Your task to perform on an android device: Open the phone app and click the voicemail tab. Image 0: 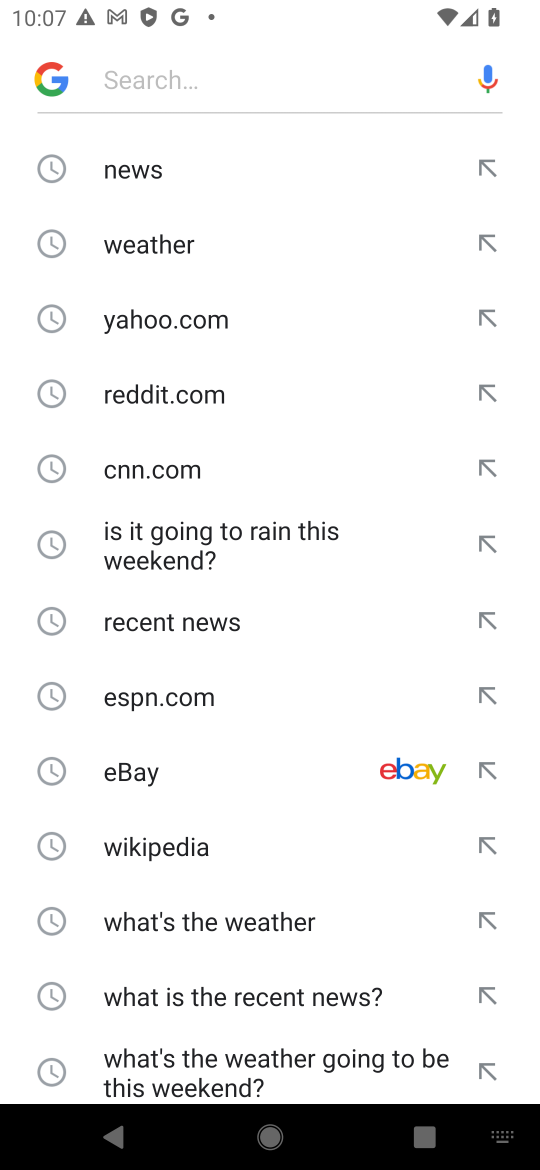
Step 0: press home button
Your task to perform on an android device: Open the phone app and click the voicemail tab. Image 1: 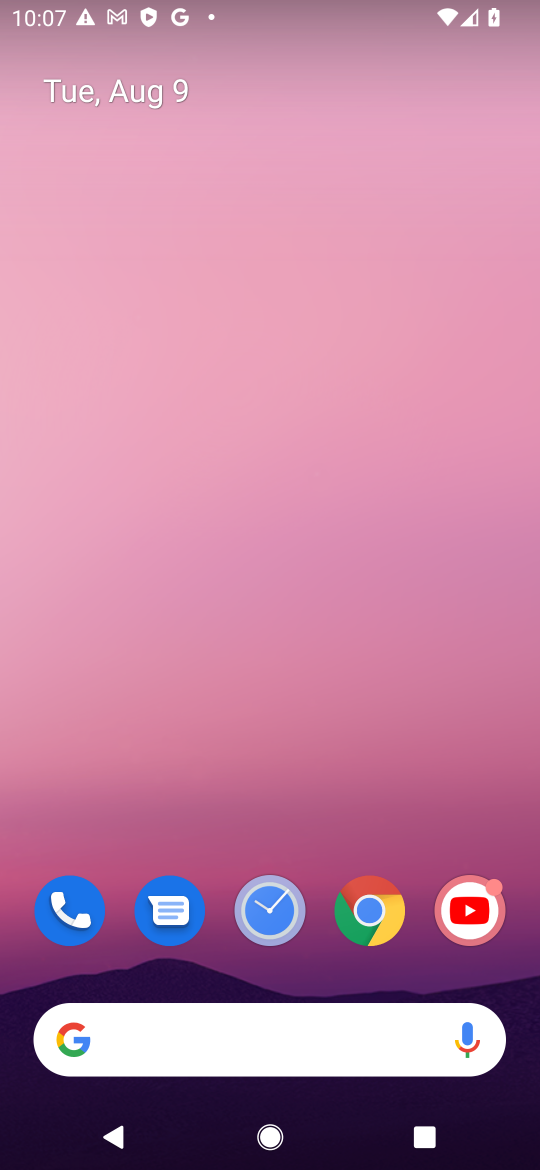
Step 1: drag from (100, 795) to (412, 123)
Your task to perform on an android device: Open the phone app and click the voicemail tab. Image 2: 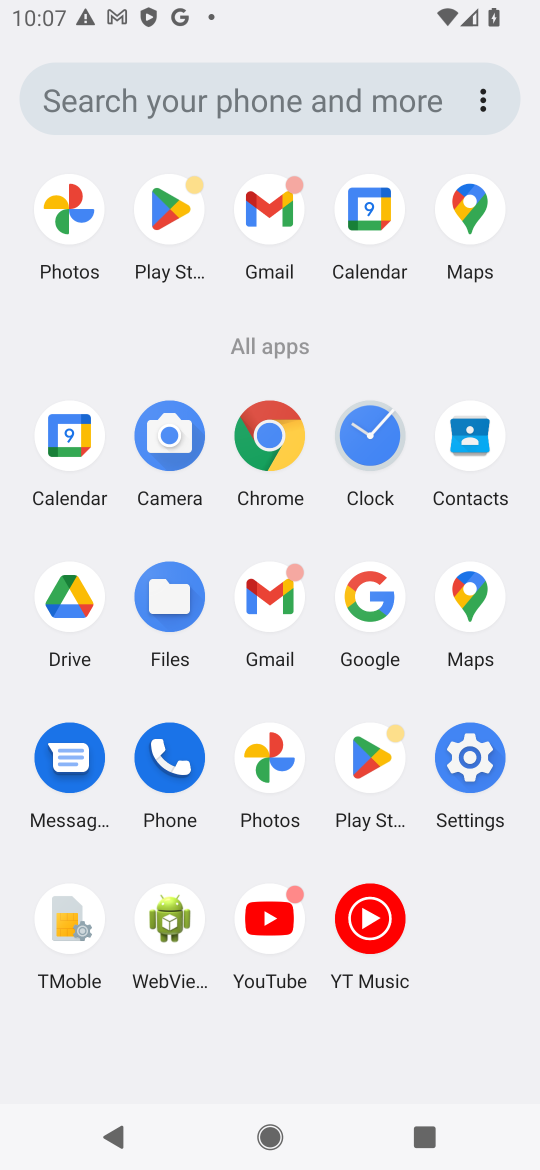
Step 2: click (194, 752)
Your task to perform on an android device: Open the phone app and click the voicemail tab. Image 3: 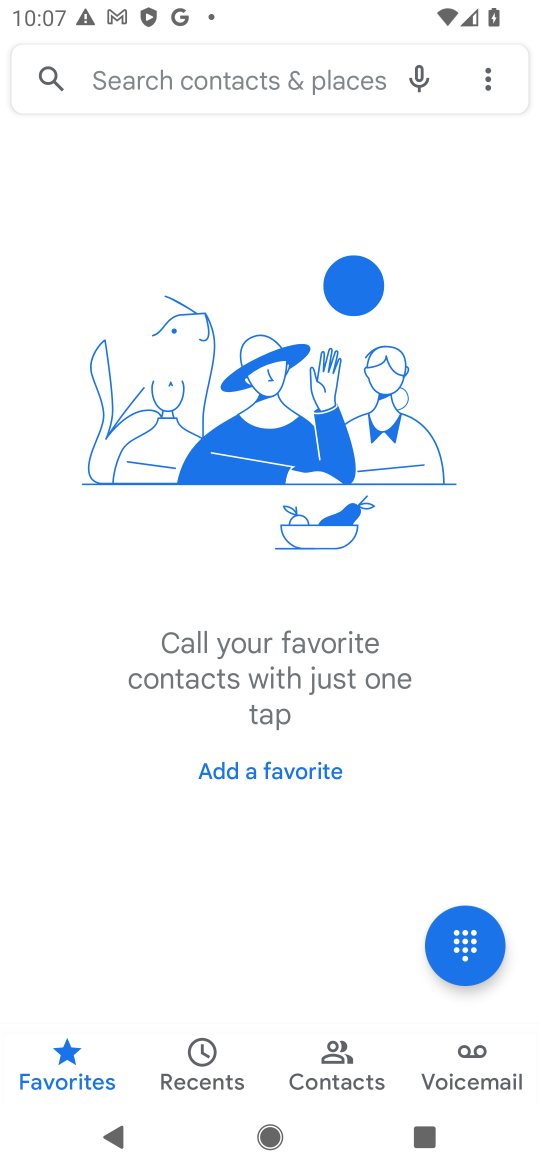
Step 3: click (483, 1075)
Your task to perform on an android device: Open the phone app and click the voicemail tab. Image 4: 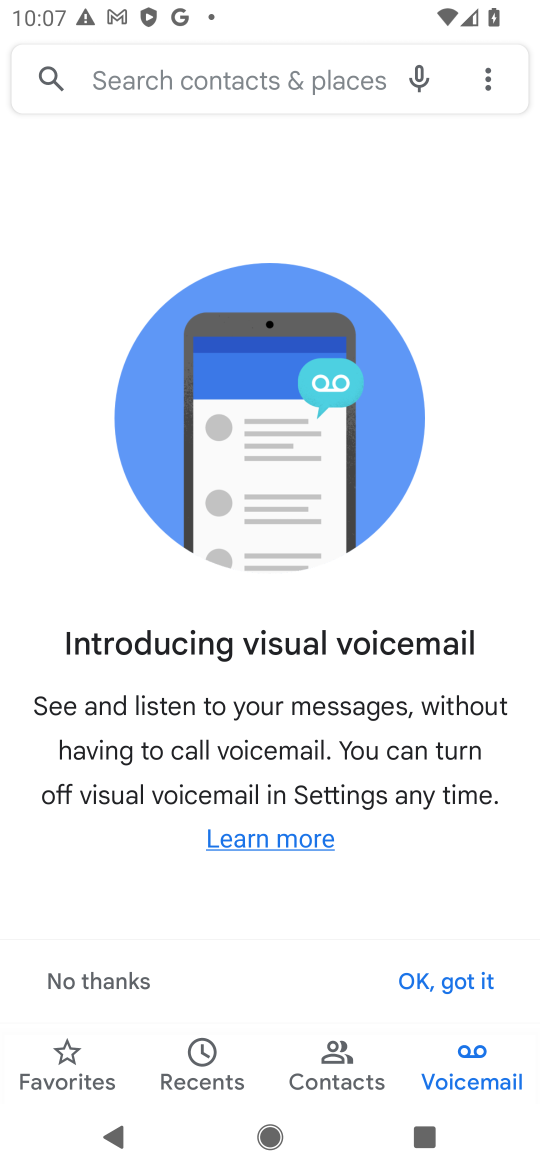
Step 4: task complete